Your task to perform on an android device: check battery use Image 0: 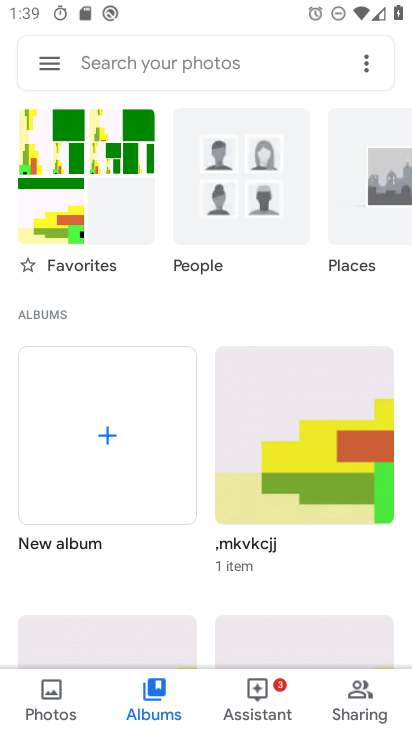
Step 0: press home button
Your task to perform on an android device: check battery use Image 1: 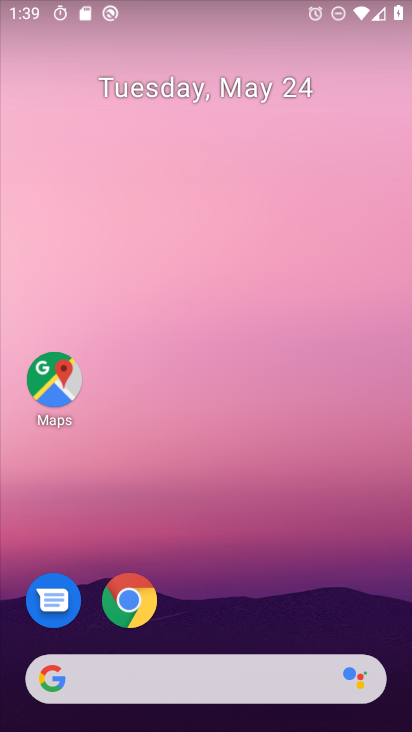
Step 1: drag from (325, 430) to (265, 51)
Your task to perform on an android device: check battery use Image 2: 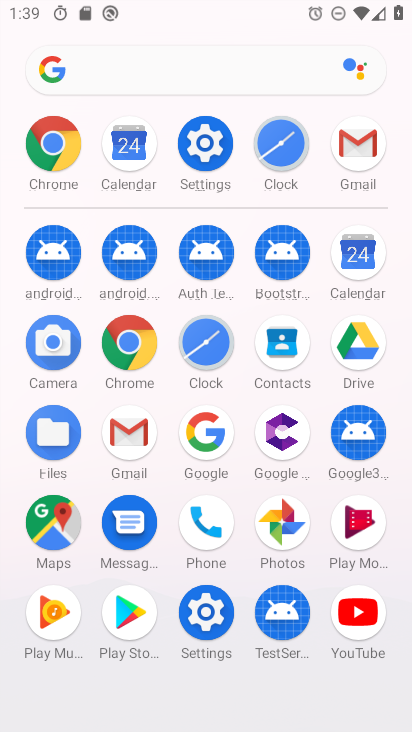
Step 2: click (202, 152)
Your task to perform on an android device: check battery use Image 3: 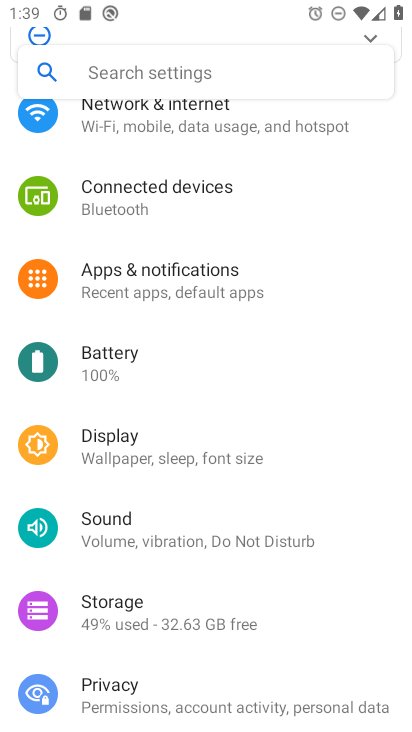
Step 3: click (179, 374)
Your task to perform on an android device: check battery use Image 4: 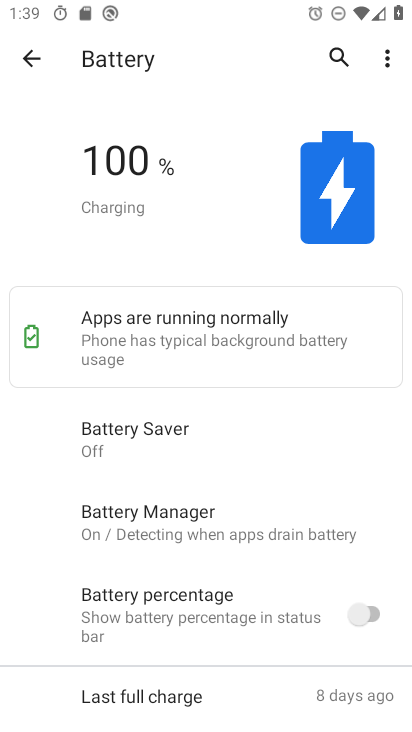
Step 4: click (382, 60)
Your task to perform on an android device: check battery use Image 5: 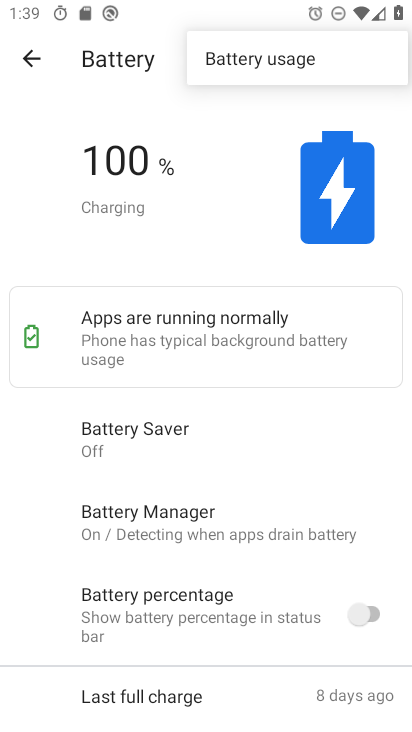
Step 5: click (292, 61)
Your task to perform on an android device: check battery use Image 6: 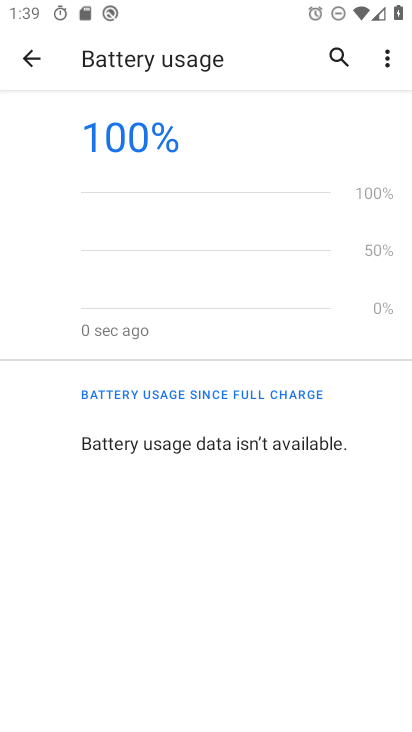
Step 6: task complete